Your task to perform on an android device: toggle airplane mode Image 0: 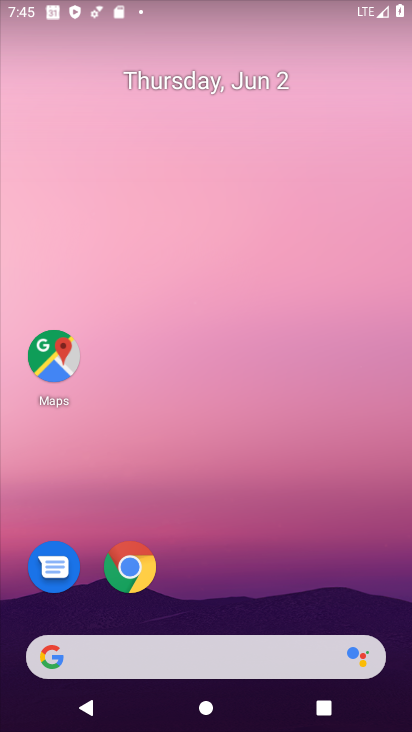
Step 0: drag from (364, 594) to (363, 219)
Your task to perform on an android device: toggle airplane mode Image 1: 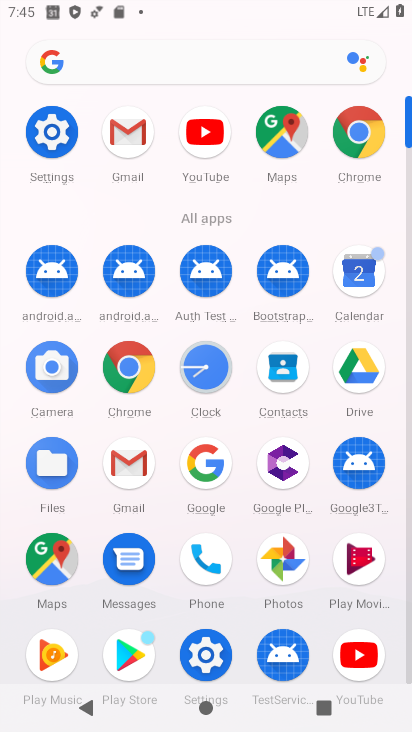
Step 1: click (216, 662)
Your task to perform on an android device: toggle airplane mode Image 2: 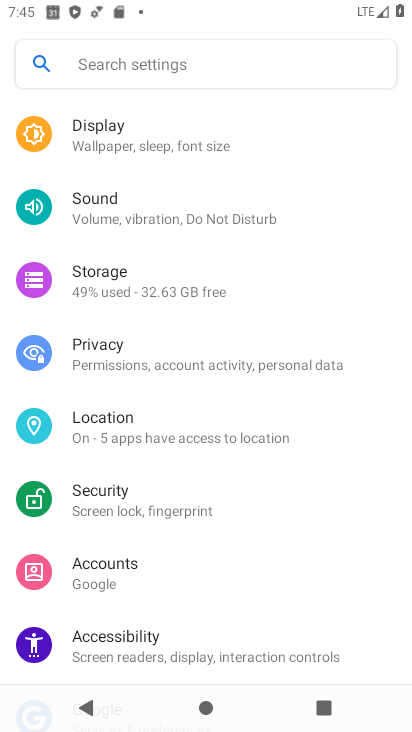
Step 2: drag from (361, 265) to (361, 355)
Your task to perform on an android device: toggle airplane mode Image 3: 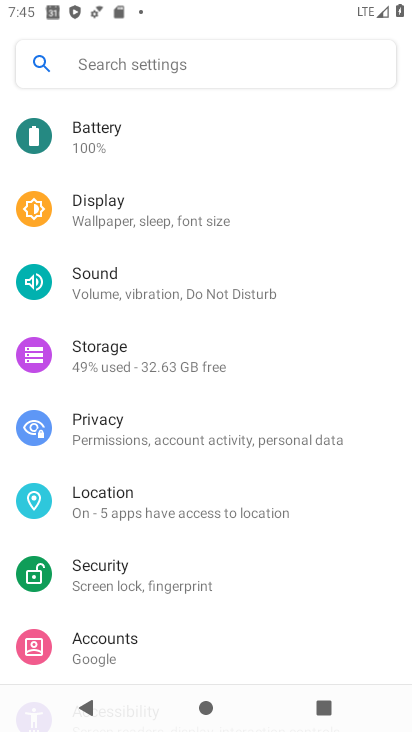
Step 3: drag from (344, 225) to (344, 314)
Your task to perform on an android device: toggle airplane mode Image 4: 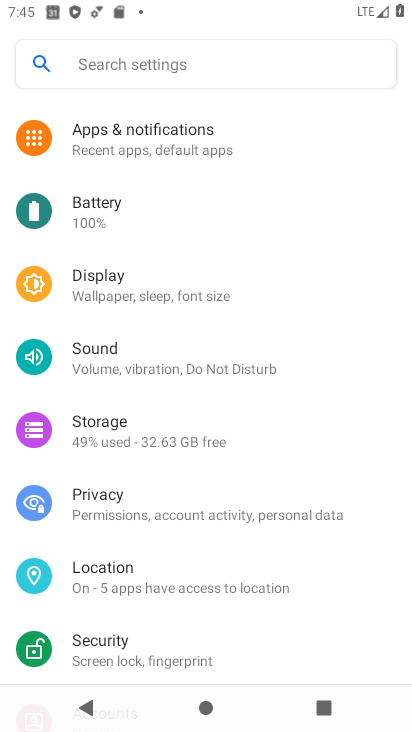
Step 4: drag from (352, 204) to (353, 286)
Your task to perform on an android device: toggle airplane mode Image 5: 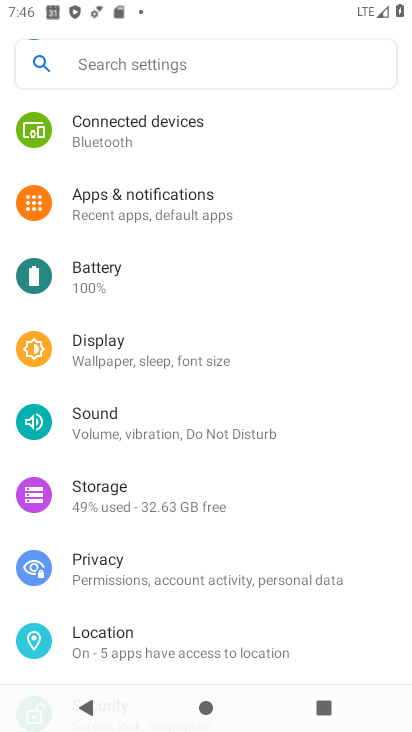
Step 5: drag from (341, 203) to (340, 365)
Your task to perform on an android device: toggle airplane mode Image 6: 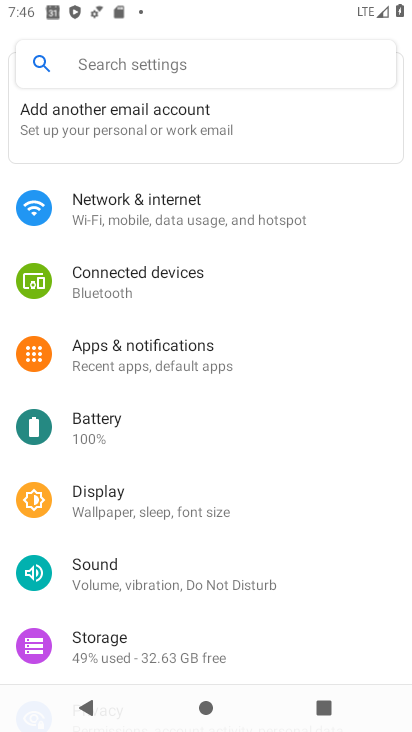
Step 6: drag from (344, 233) to (343, 371)
Your task to perform on an android device: toggle airplane mode Image 7: 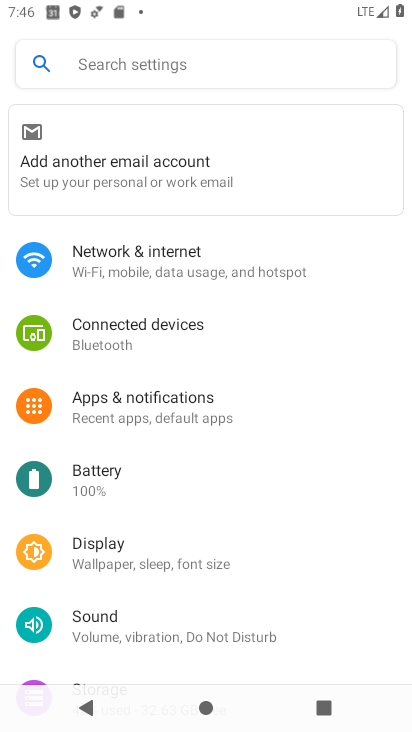
Step 7: click (271, 277)
Your task to perform on an android device: toggle airplane mode Image 8: 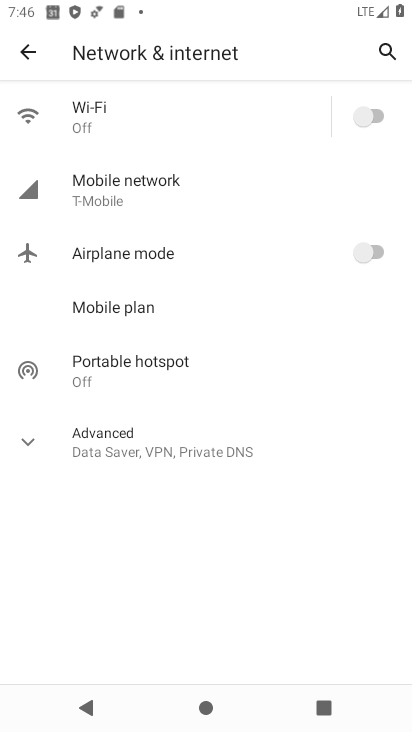
Step 8: click (362, 254)
Your task to perform on an android device: toggle airplane mode Image 9: 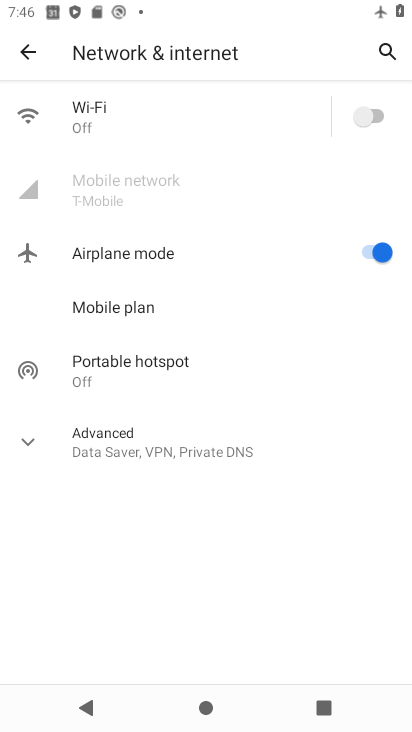
Step 9: task complete